Your task to perform on an android device: add a contact Image 0: 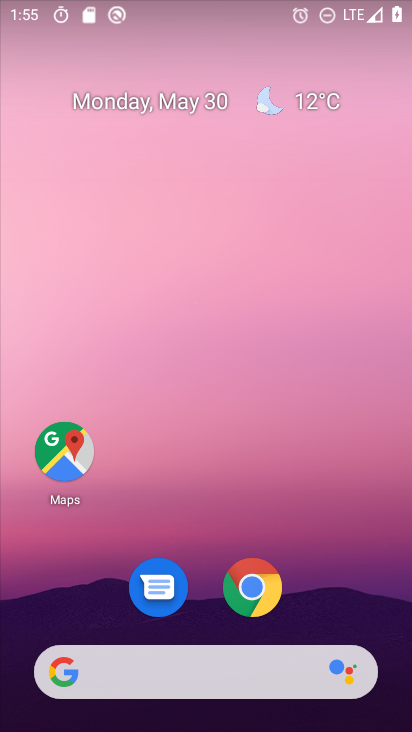
Step 0: drag from (305, 507) to (262, 72)
Your task to perform on an android device: add a contact Image 1: 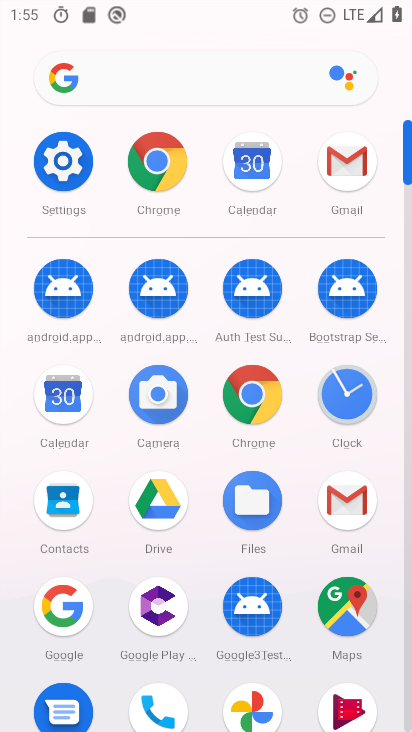
Step 1: click (64, 486)
Your task to perform on an android device: add a contact Image 2: 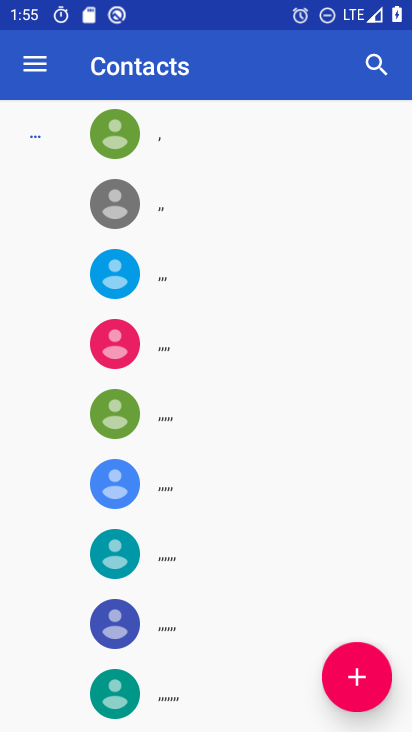
Step 2: click (367, 666)
Your task to perform on an android device: add a contact Image 3: 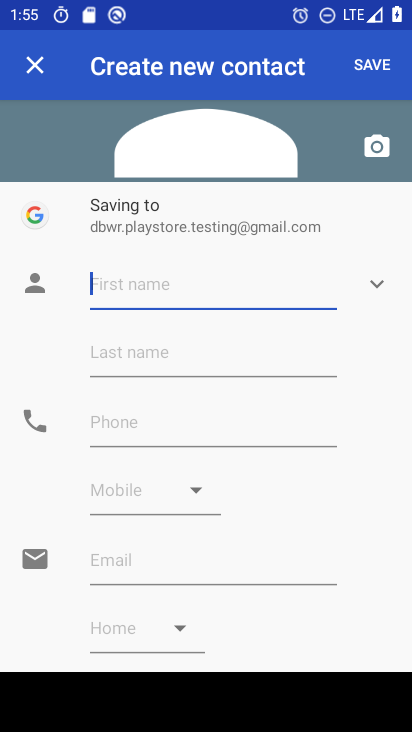
Step 3: type "encgame"
Your task to perform on an android device: add a contact Image 4: 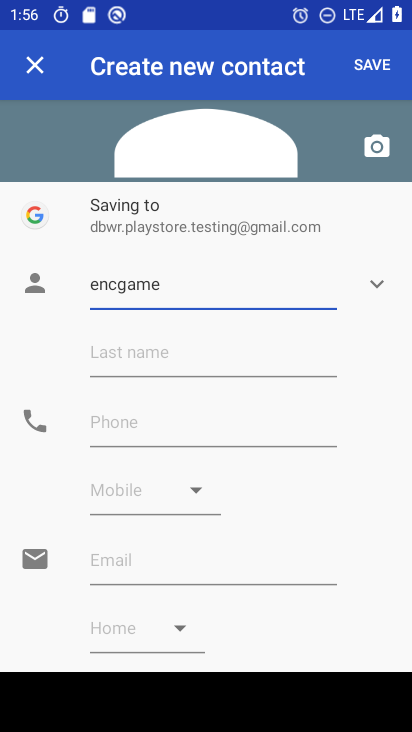
Step 4: click (365, 57)
Your task to perform on an android device: add a contact Image 5: 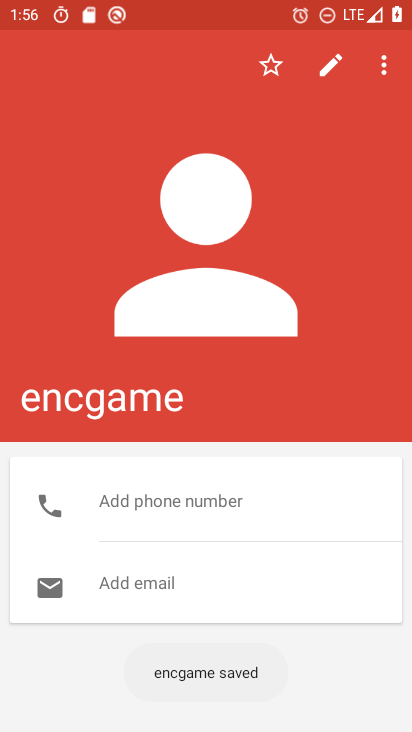
Step 5: task complete